Your task to perform on an android device: Open the map Image 0: 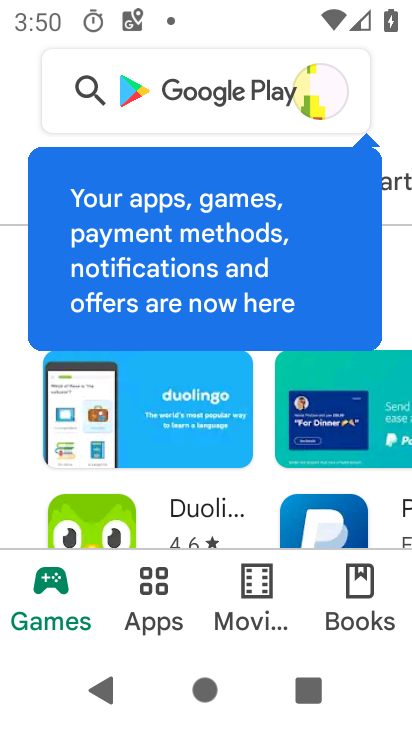
Step 0: press home button
Your task to perform on an android device: Open the map Image 1: 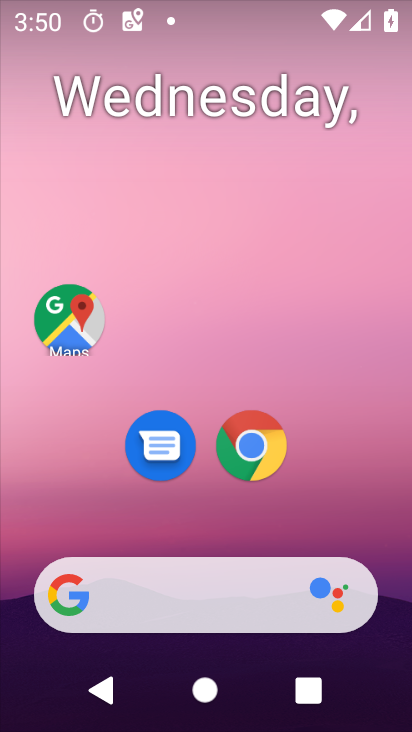
Step 1: click (62, 323)
Your task to perform on an android device: Open the map Image 2: 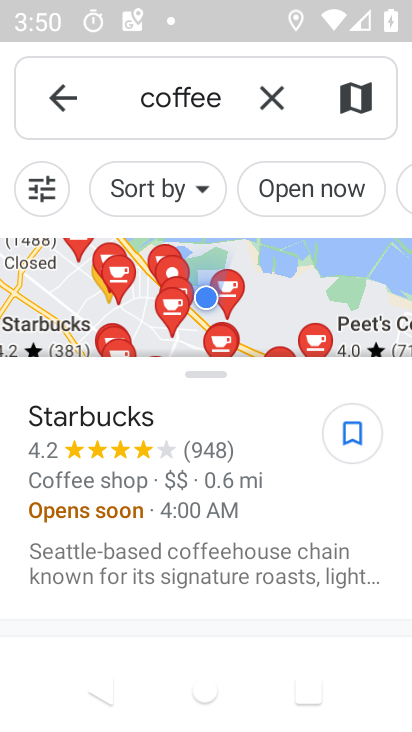
Step 2: task complete